Your task to perform on an android device: turn on improve location accuracy Image 0: 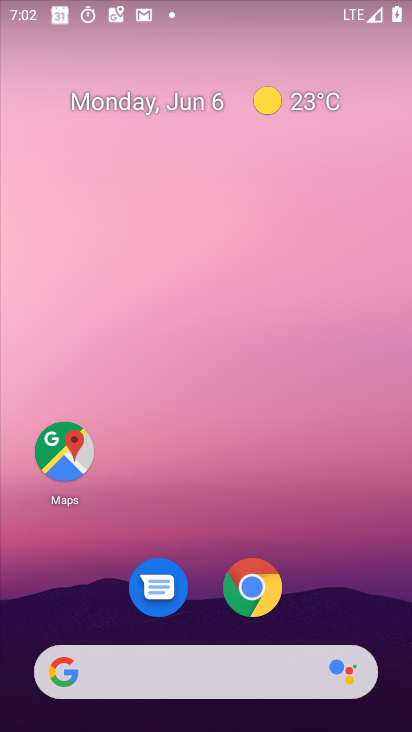
Step 0: drag from (381, 666) to (307, 49)
Your task to perform on an android device: turn on improve location accuracy Image 1: 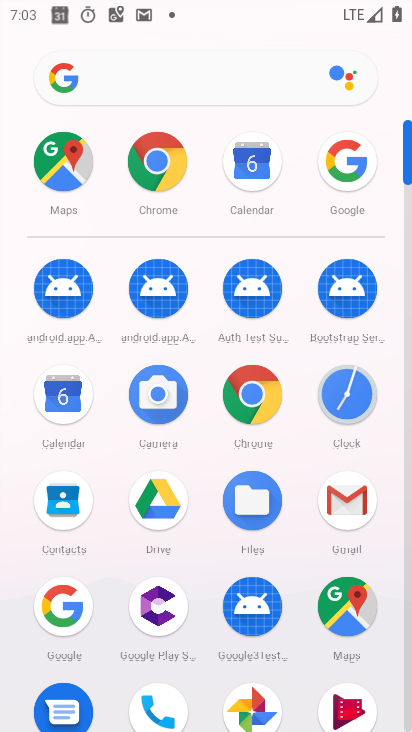
Step 1: drag from (203, 679) to (206, 187)
Your task to perform on an android device: turn on improve location accuracy Image 2: 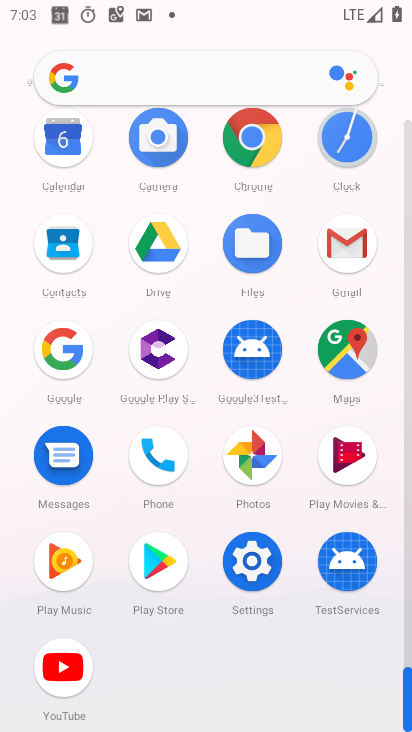
Step 2: click (257, 559)
Your task to perform on an android device: turn on improve location accuracy Image 3: 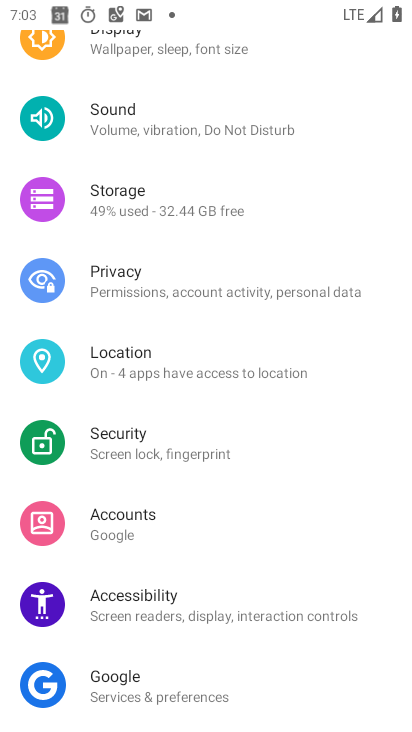
Step 3: click (163, 357)
Your task to perform on an android device: turn on improve location accuracy Image 4: 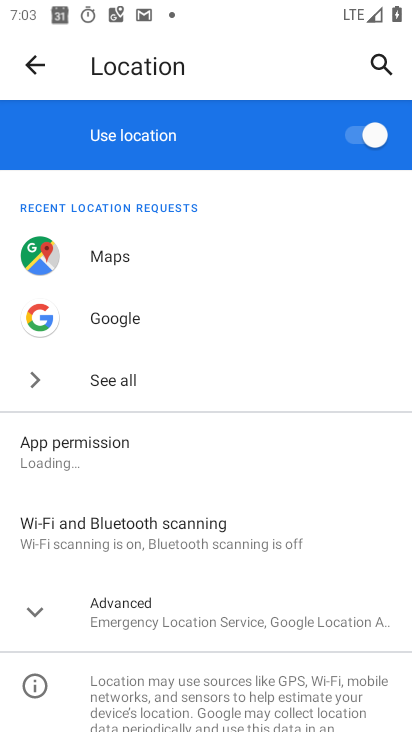
Step 4: click (157, 616)
Your task to perform on an android device: turn on improve location accuracy Image 5: 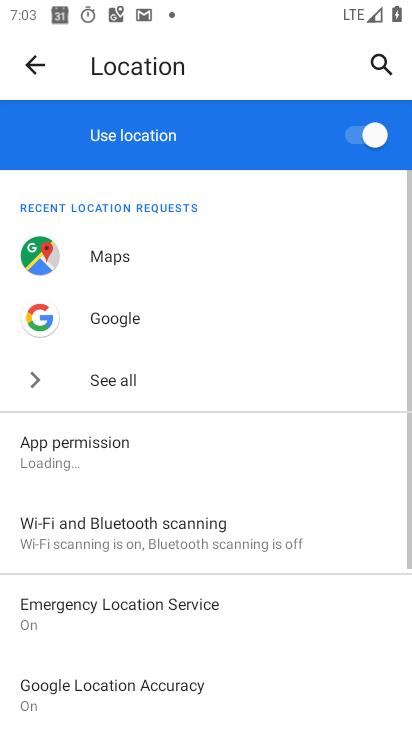
Step 5: click (229, 690)
Your task to perform on an android device: turn on improve location accuracy Image 6: 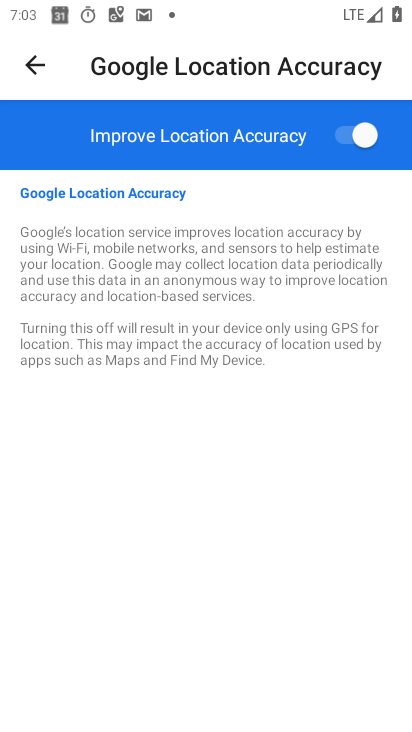
Step 6: task complete